Your task to perform on an android device: View the shopping cart on target.com. Add logitech g910 to the cart on target.com, then select checkout. Image 0: 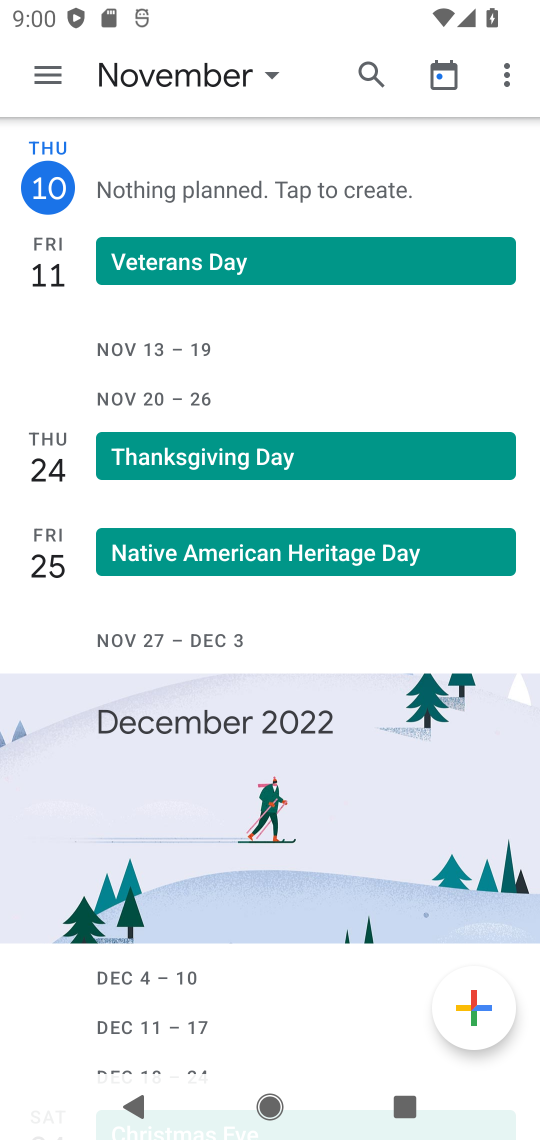
Step 0: press home button
Your task to perform on an android device: View the shopping cart on target.com. Add logitech g910 to the cart on target.com, then select checkout. Image 1: 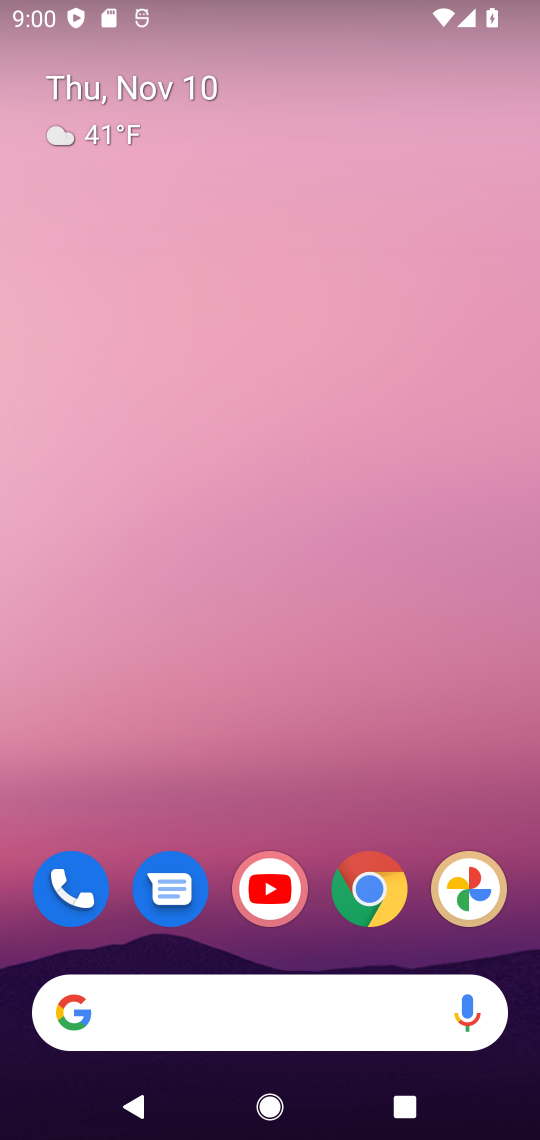
Step 1: click (383, 880)
Your task to perform on an android device: View the shopping cart on target.com. Add logitech g910 to the cart on target.com, then select checkout. Image 2: 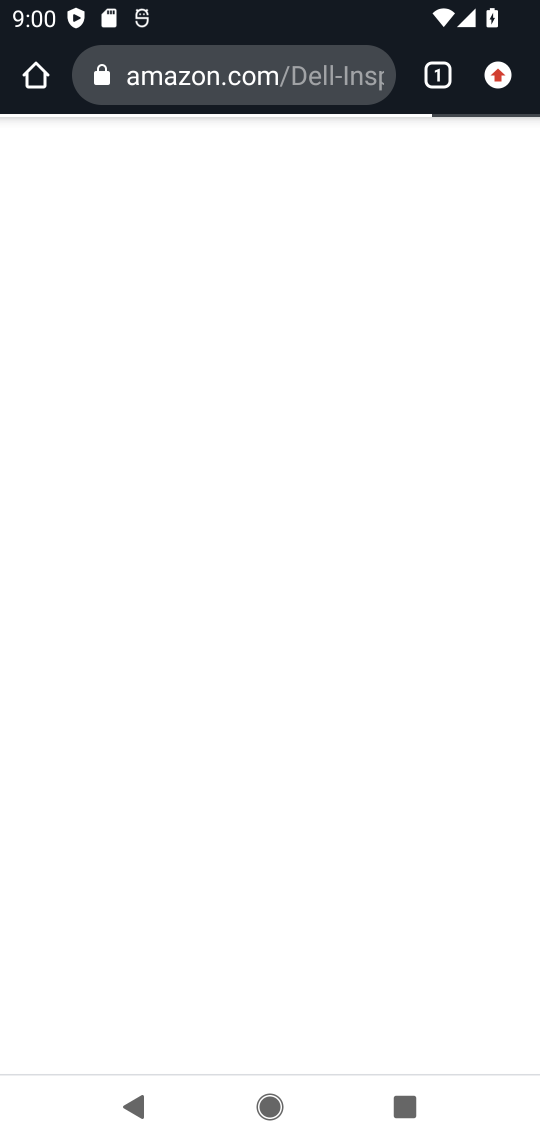
Step 2: click (278, 82)
Your task to perform on an android device: View the shopping cart on target.com. Add logitech g910 to the cart on target.com, then select checkout. Image 3: 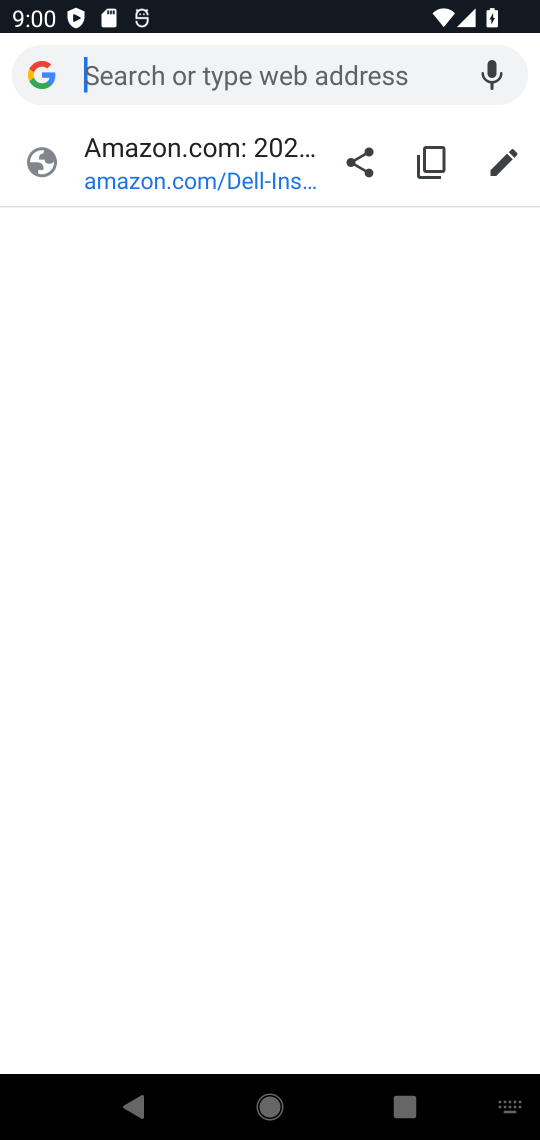
Step 3: click (278, 62)
Your task to perform on an android device: View the shopping cart on target.com. Add logitech g910 to the cart on target.com, then select checkout. Image 4: 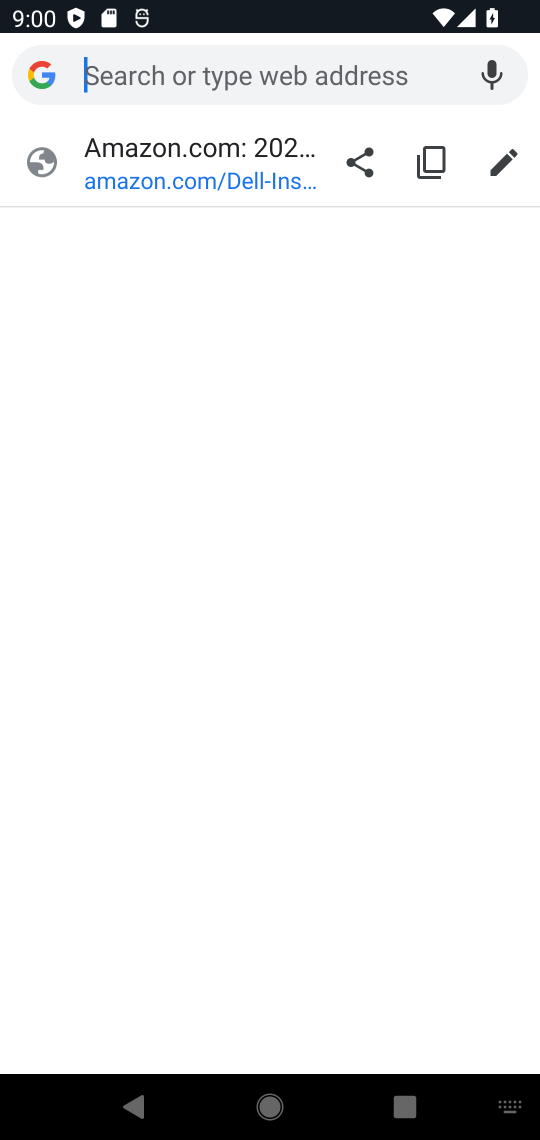
Step 4: type "target.com"
Your task to perform on an android device: View the shopping cart on target.com. Add logitech g910 to the cart on target.com, then select checkout. Image 5: 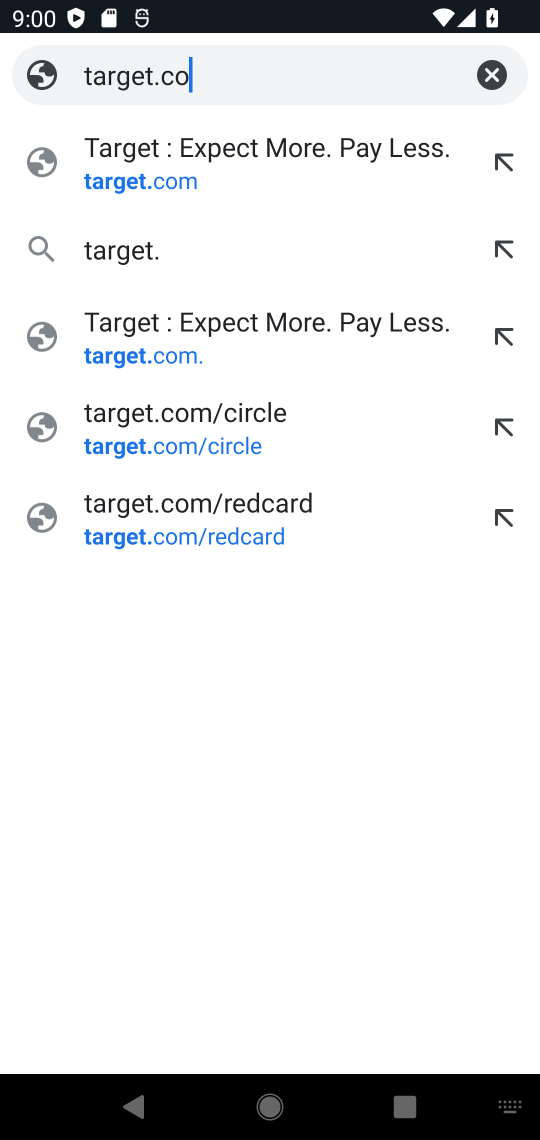
Step 5: press enter
Your task to perform on an android device: View the shopping cart on target.com. Add logitech g910 to the cart on target.com, then select checkout. Image 6: 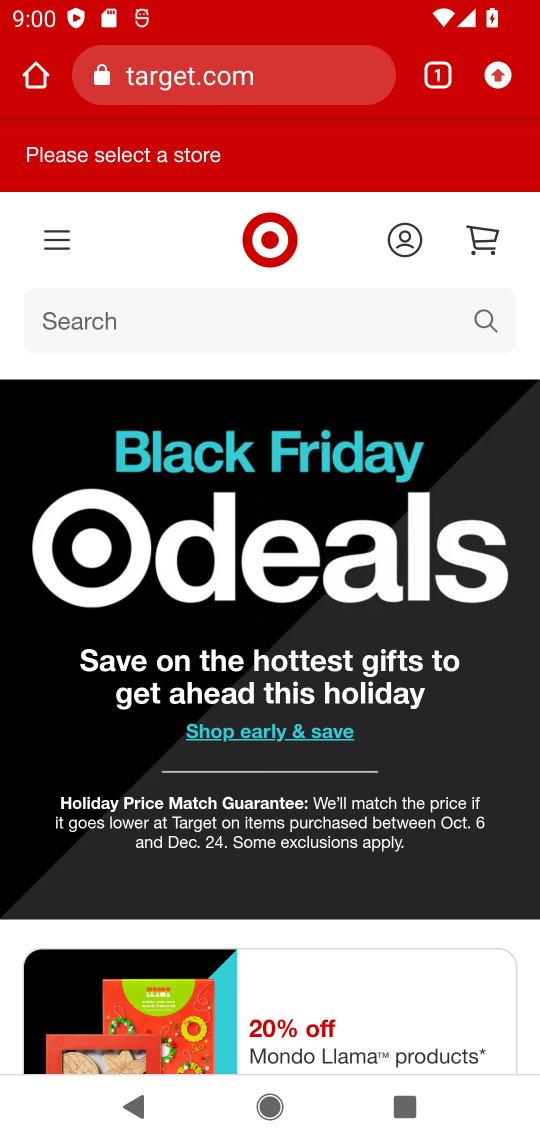
Step 6: click (128, 313)
Your task to perform on an android device: View the shopping cart on target.com. Add logitech g910 to the cart on target.com, then select checkout. Image 7: 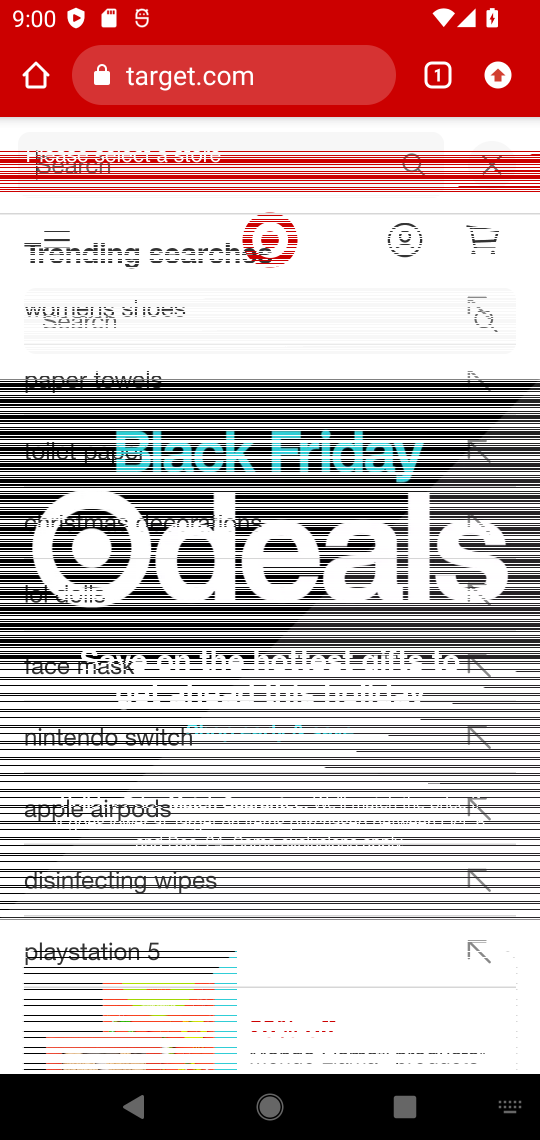
Step 7: click (62, 148)
Your task to perform on an android device: View the shopping cart on target.com. Add logitech g910 to the cart on target.com, then select checkout. Image 8: 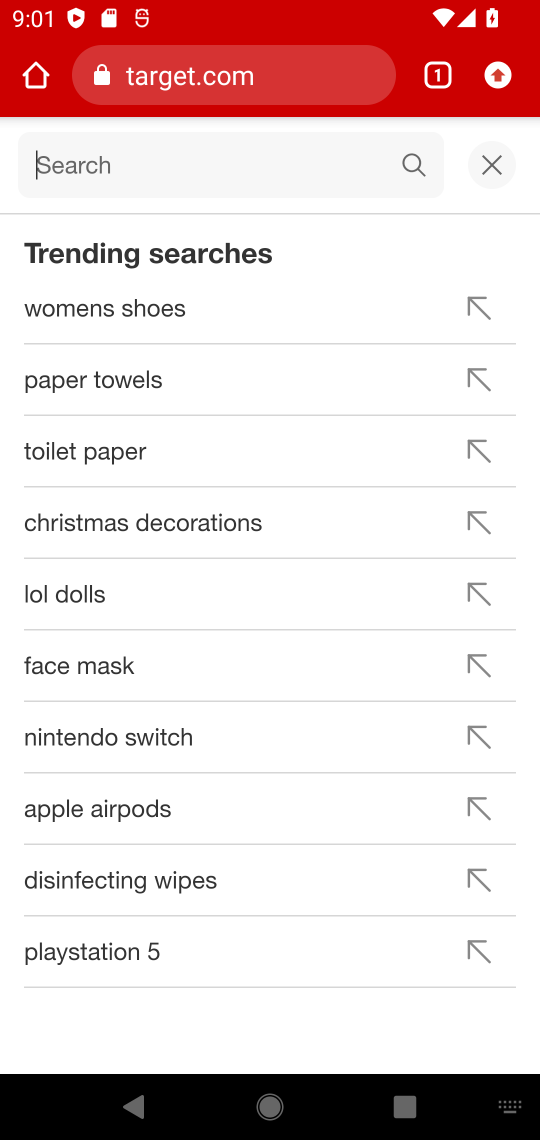
Step 8: type "logitech g910"
Your task to perform on an android device: View the shopping cart on target.com. Add logitech g910 to the cart on target.com, then select checkout. Image 9: 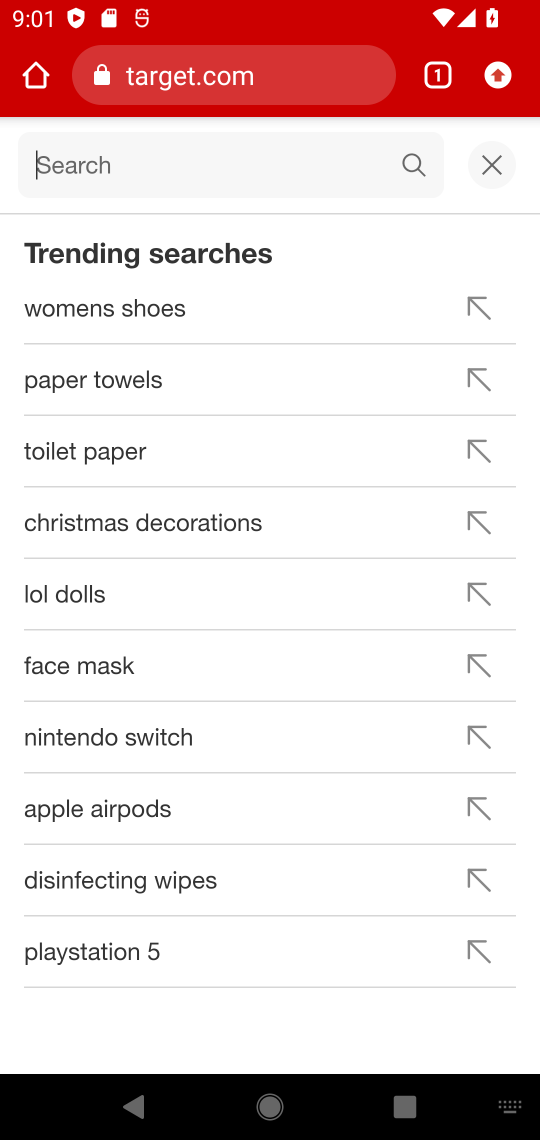
Step 9: press enter
Your task to perform on an android device: View the shopping cart on target.com. Add logitech g910 to the cart on target.com, then select checkout. Image 10: 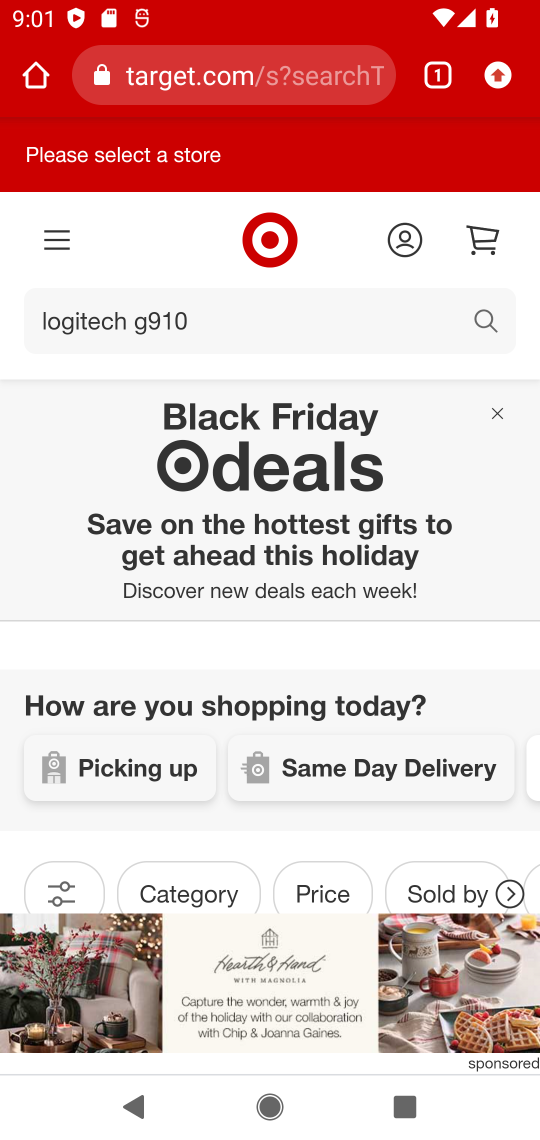
Step 10: task complete